Your task to perform on an android device: Turn off the flashlight Image 0: 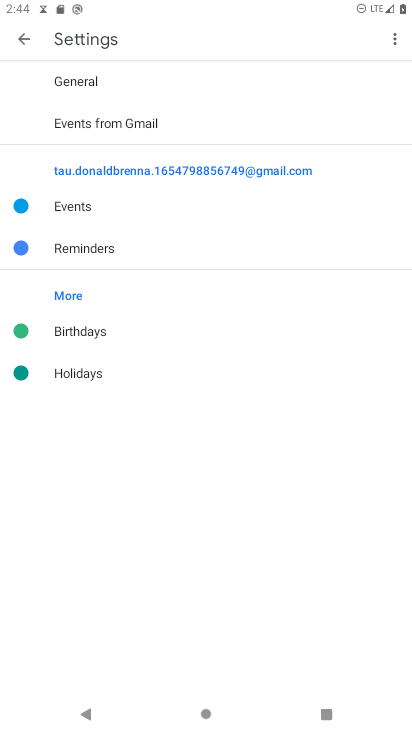
Step 0: press home button
Your task to perform on an android device: Turn off the flashlight Image 1: 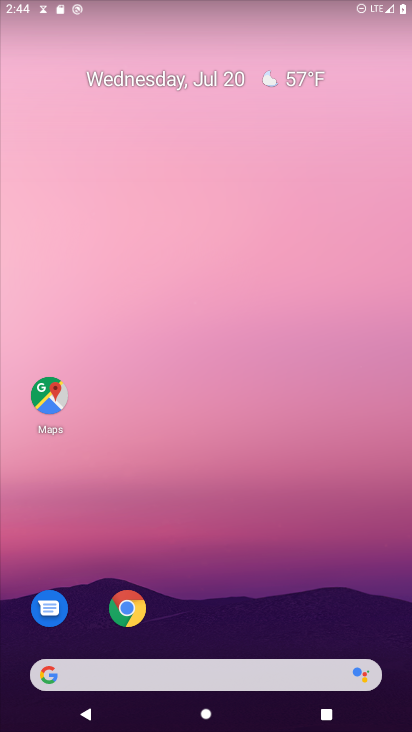
Step 1: drag from (231, 723) to (230, 537)
Your task to perform on an android device: Turn off the flashlight Image 2: 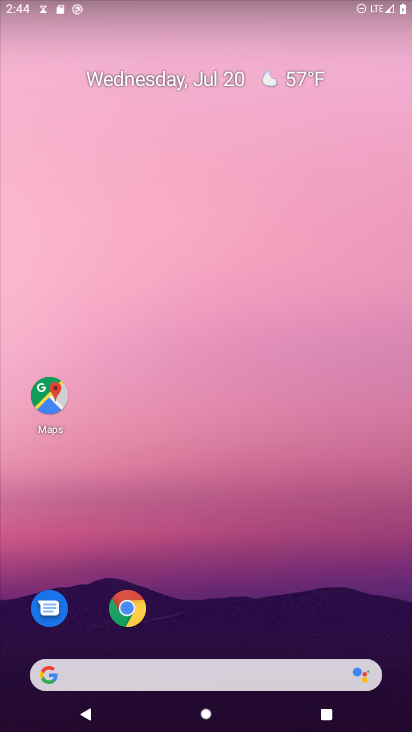
Step 2: drag from (228, 722) to (227, 193)
Your task to perform on an android device: Turn off the flashlight Image 3: 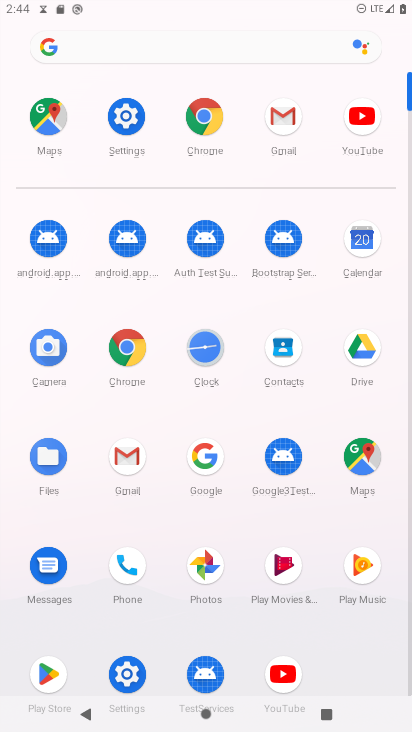
Step 3: click (123, 109)
Your task to perform on an android device: Turn off the flashlight Image 4: 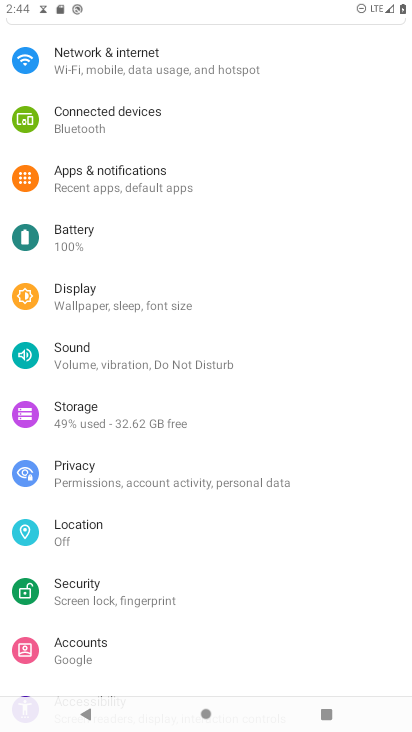
Step 4: task complete